Your task to perform on an android device: toggle location history Image 0: 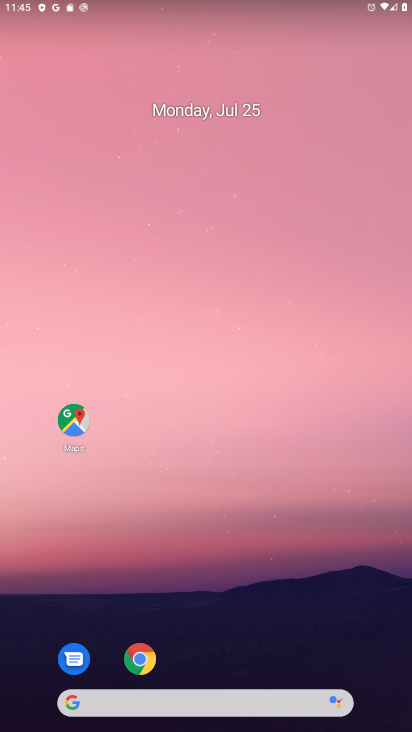
Step 0: click (71, 412)
Your task to perform on an android device: toggle location history Image 1: 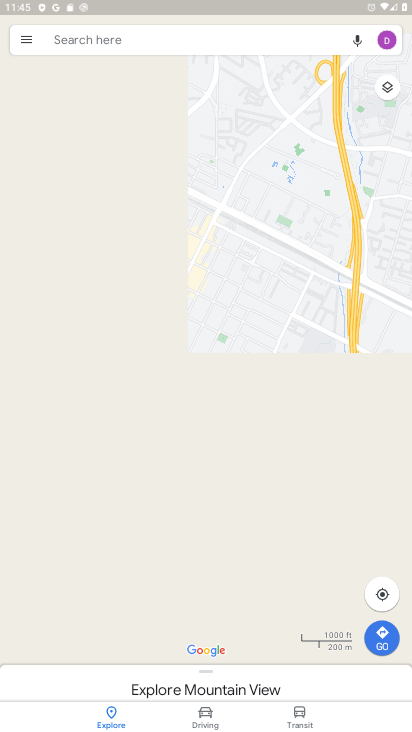
Step 1: click (18, 39)
Your task to perform on an android device: toggle location history Image 2: 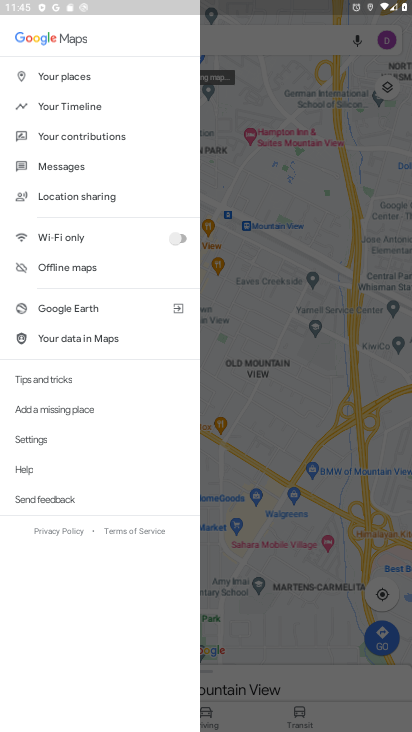
Step 2: click (70, 105)
Your task to perform on an android device: toggle location history Image 3: 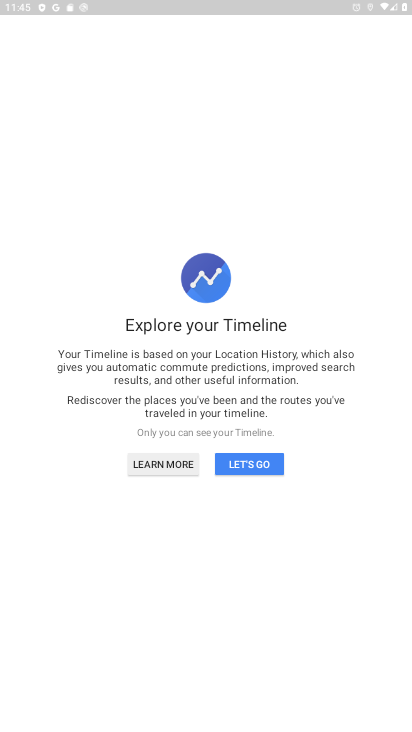
Step 3: click (239, 463)
Your task to perform on an android device: toggle location history Image 4: 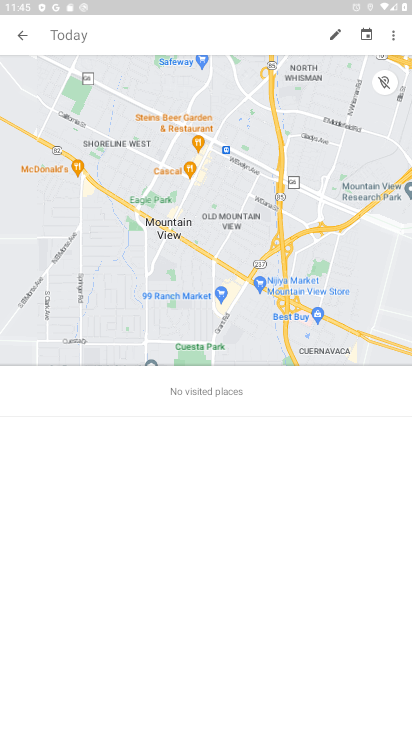
Step 4: click (392, 34)
Your task to perform on an android device: toggle location history Image 5: 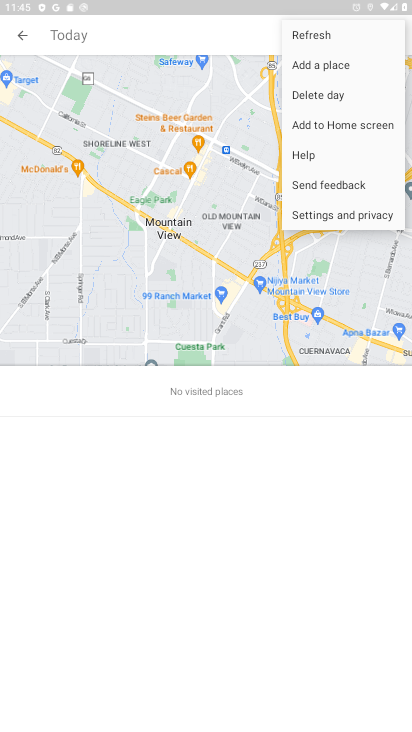
Step 5: click (343, 212)
Your task to perform on an android device: toggle location history Image 6: 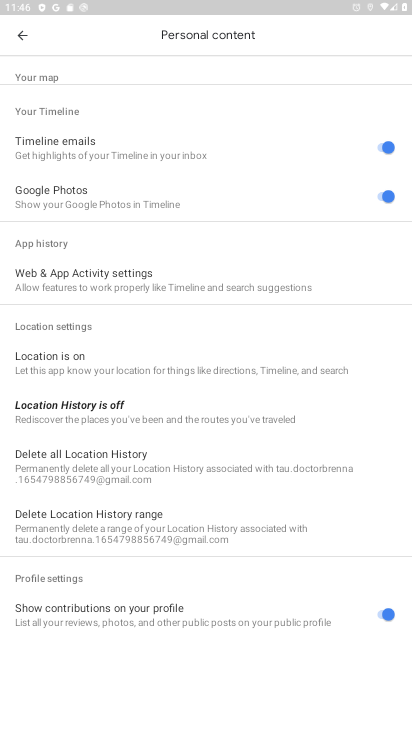
Step 6: click (82, 404)
Your task to perform on an android device: toggle location history Image 7: 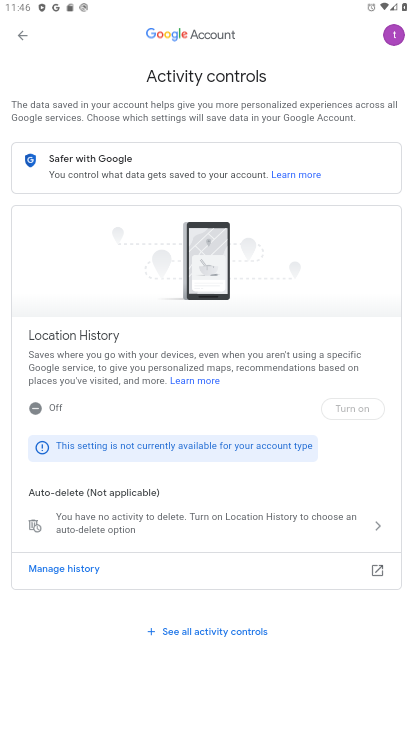
Step 7: click (333, 397)
Your task to perform on an android device: toggle location history Image 8: 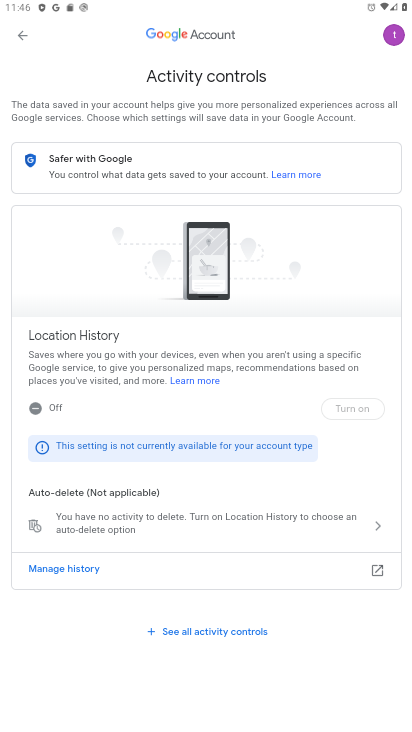
Step 8: task complete